Your task to perform on an android device: Find coffee shops on Maps Image 0: 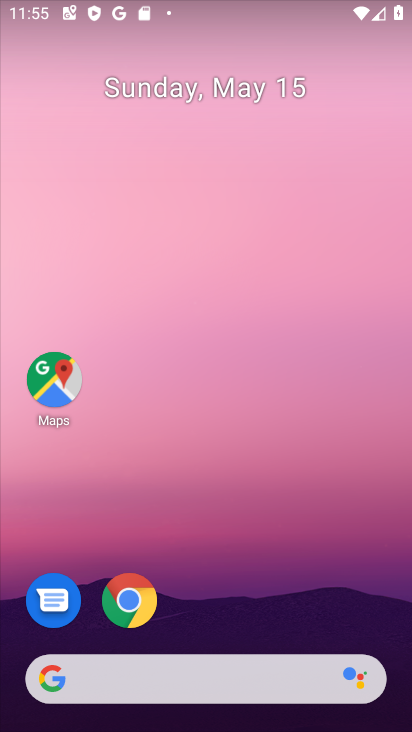
Step 0: click (66, 382)
Your task to perform on an android device: Find coffee shops on Maps Image 1: 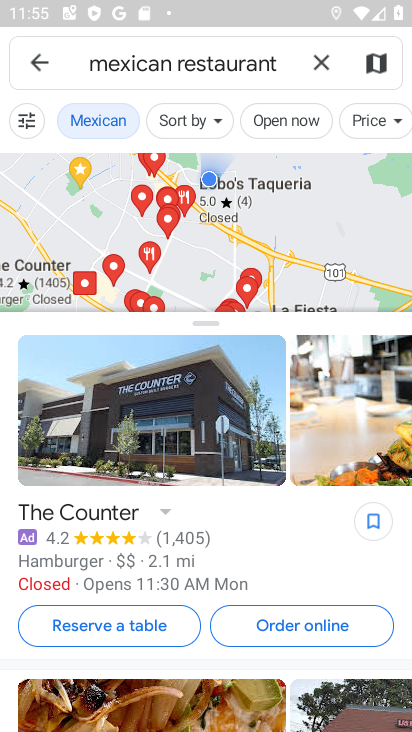
Step 1: click (325, 56)
Your task to perform on an android device: Find coffee shops on Maps Image 2: 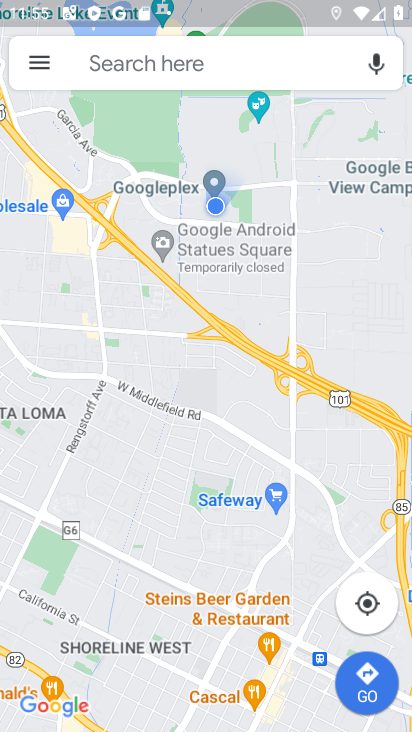
Step 2: click (183, 73)
Your task to perform on an android device: Find coffee shops on Maps Image 3: 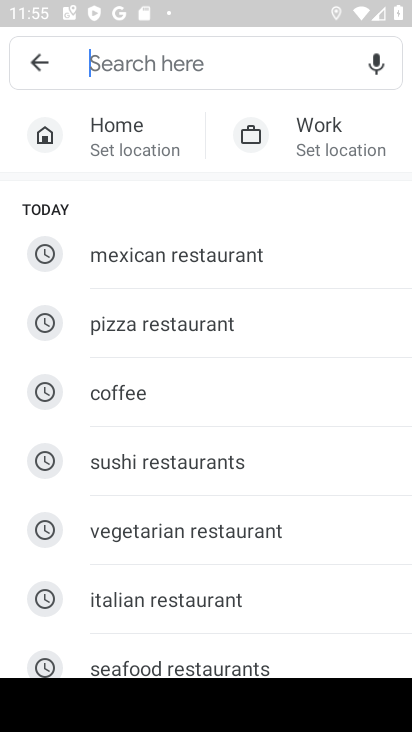
Step 3: click (136, 390)
Your task to perform on an android device: Find coffee shops on Maps Image 4: 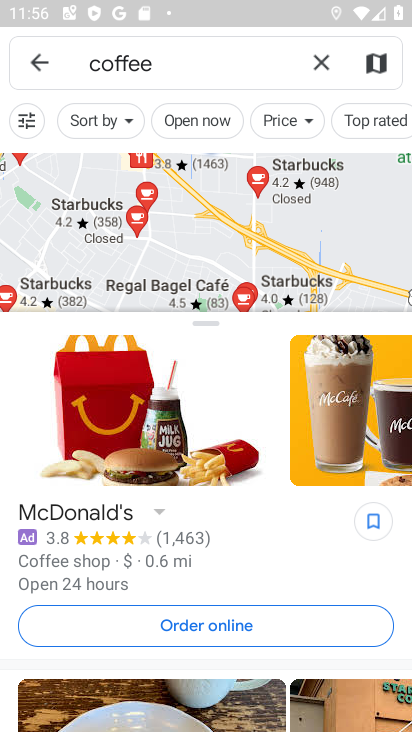
Step 4: task complete